Your task to perform on an android device: Show me the alarms in the clock app Image 0: 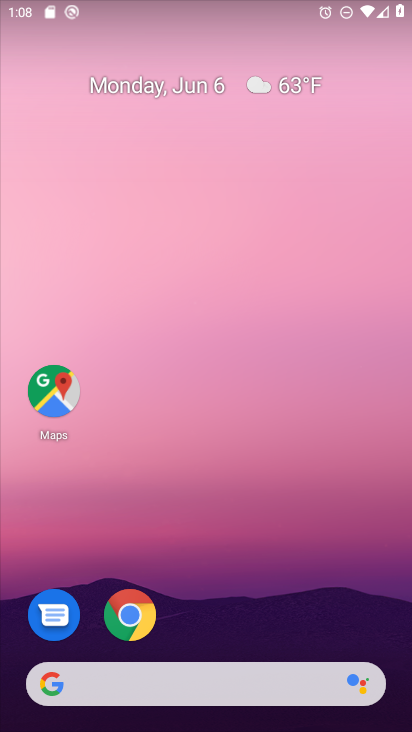
Step 0: drag from (224, 629) to (347, 0)
Your task to perform on an android device: Show me the alarms in the clock app Image 1: 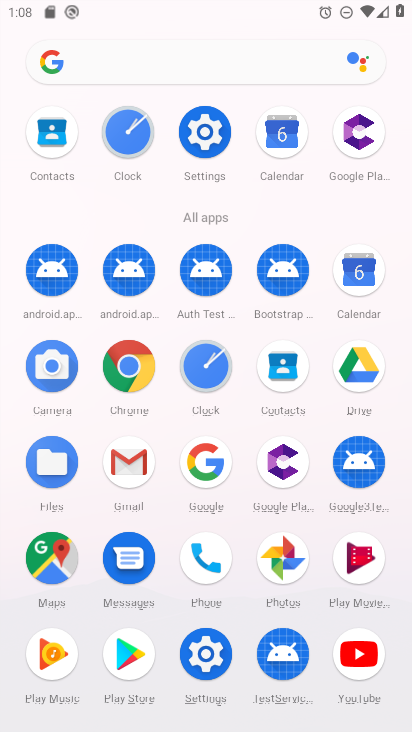
Step 1: click (197, 372)
Your task to perform on an android device: Show me the alarms in the clock app Image 2: 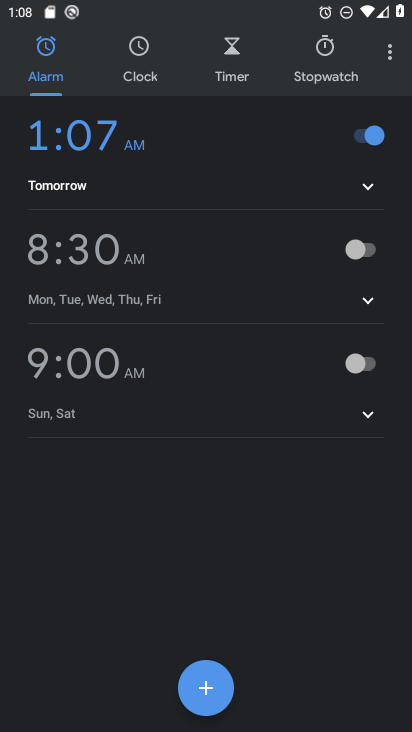
Step 2: task complete